Your task to perform on an android device: What is the news today? Image 0: 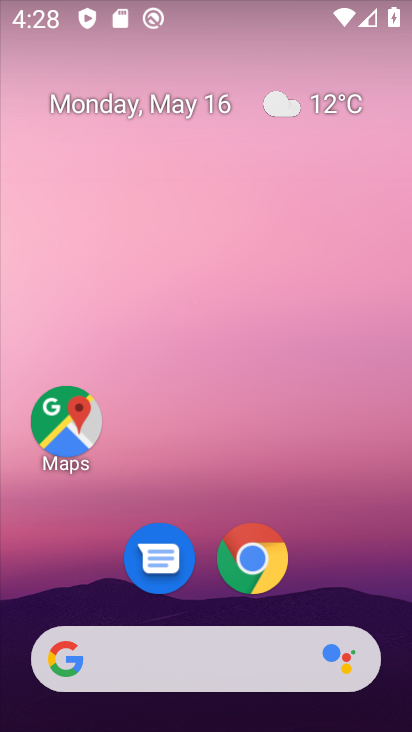
Step 0: drag from (313, 581) to (331, 204)
Your task to perform on an android device: What is the news today? Image 1: 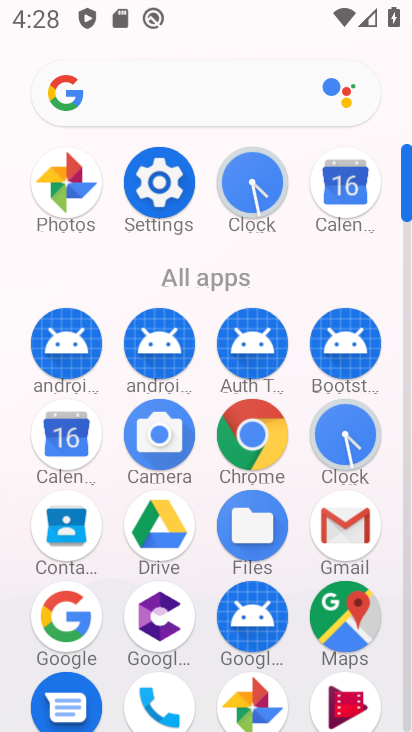
Step 1: drag from (306, 627) to (319, 287)
Your task to perform on an android device: What is the news today? Image 2: 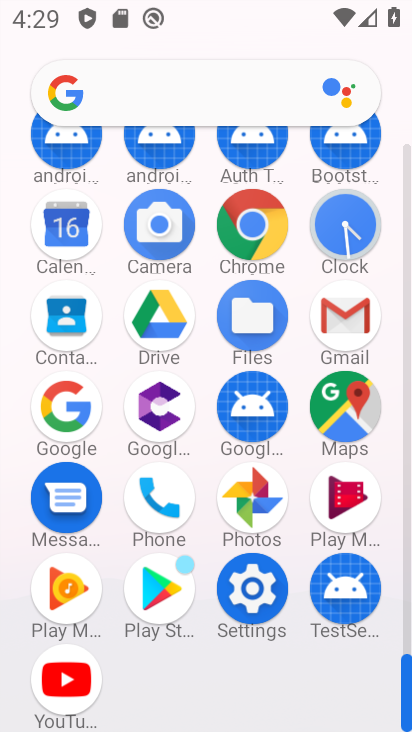
Step 2: click (258, 233)
Your task to perform on an android device: What is the news today? Image 3: 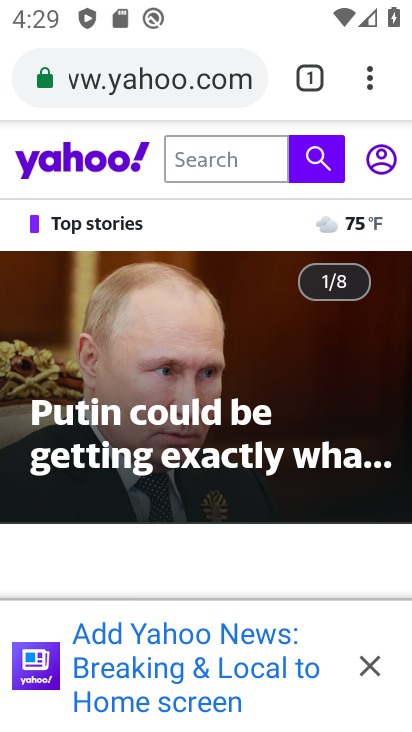
Step 3: click (170, 73)
Your task to perform on an android device: What is the news today? Image 4: 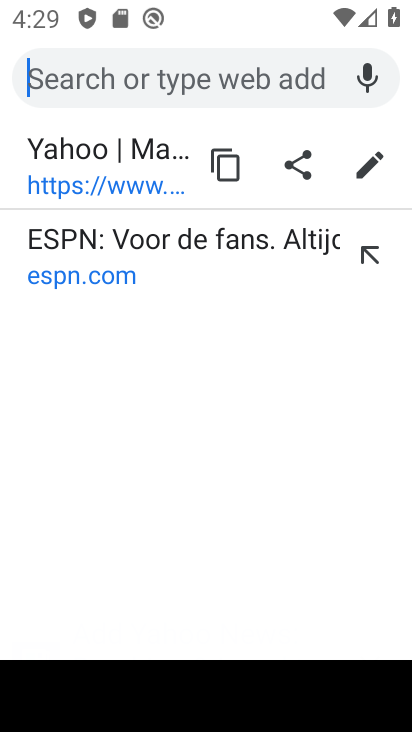
Step 4: type "whatis the news today"
Your task to perform on an android device: What is the news today? Image 5: 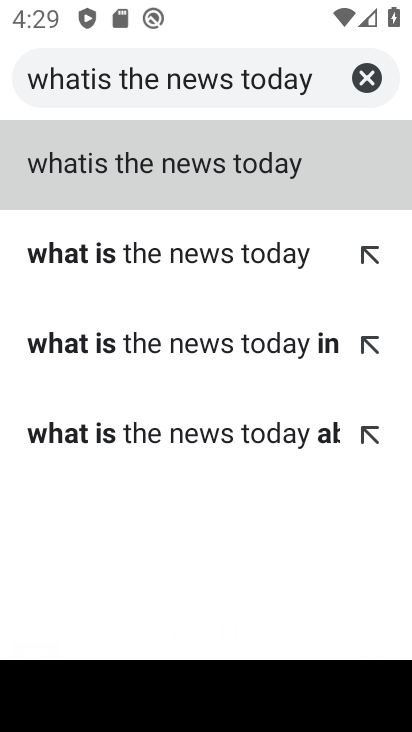
Step 5: click (245, 165)
Your task to perform on an android device: What is the news today? Image 6: 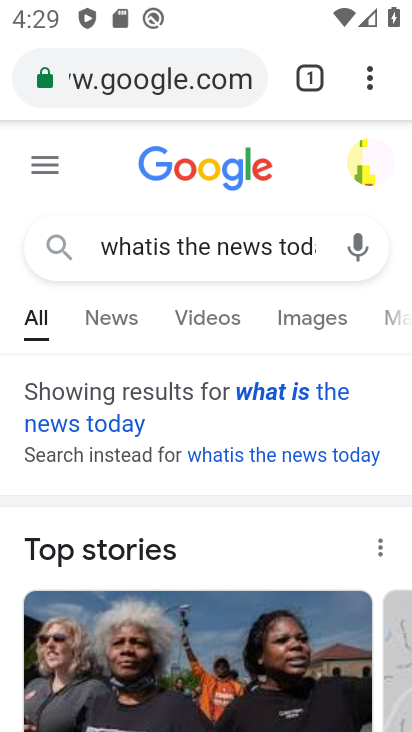
Step 6: task complete